Your task to perform on an android device: remove spam from my inbox in the gmail app Image 0: 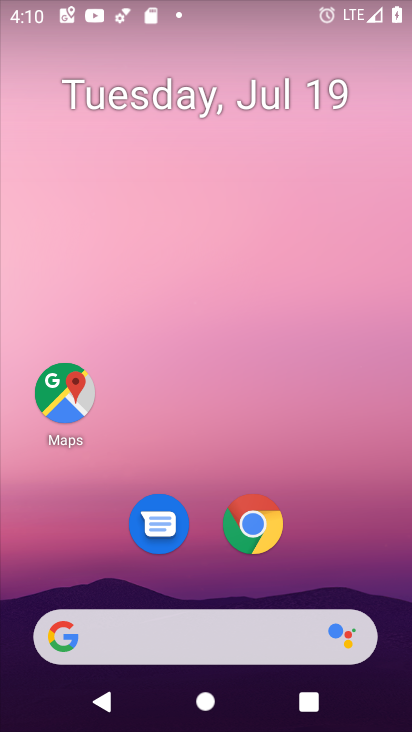
Step 0: drag from (335, 531) to (318, 63)
Your task to perform on an android device: remove spam from my inbox in the gmail app Image 1: 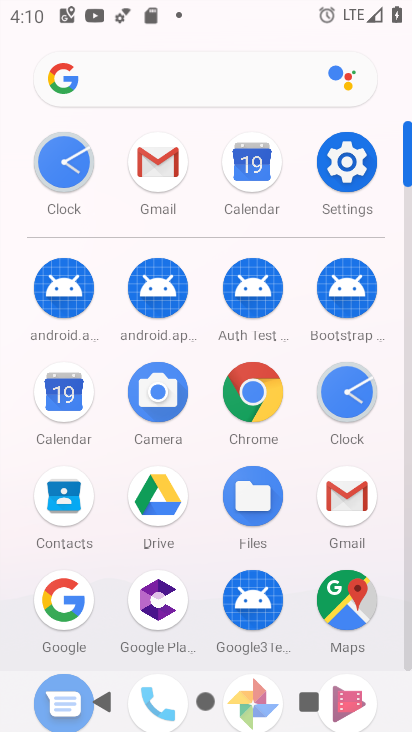
Step 1: click (163, 166)
Your task to perform on an android device: remove spam from my inbox in the gmail app Image 2: 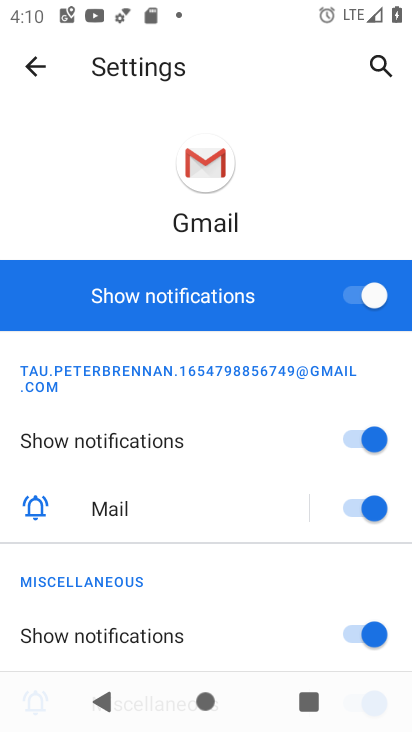
Step 2: click (35, 47)
Your task to perform on an android device: remove spam from my inbox in the gmail app Image 3: 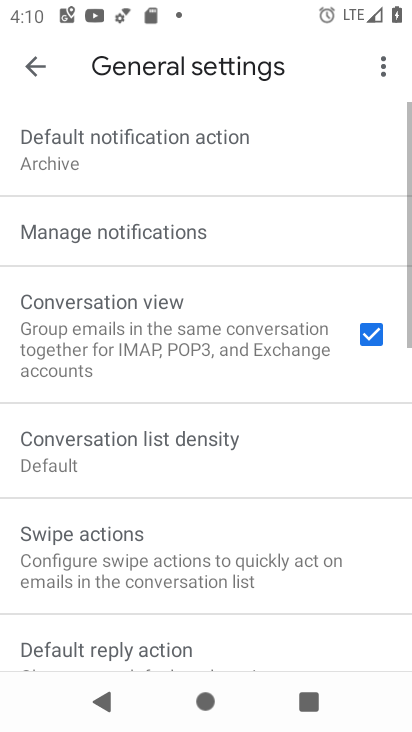
Step 3: click (35, 59)
Your task to perform on an android device: remove spam from my inbox in the gmail app Image 4: 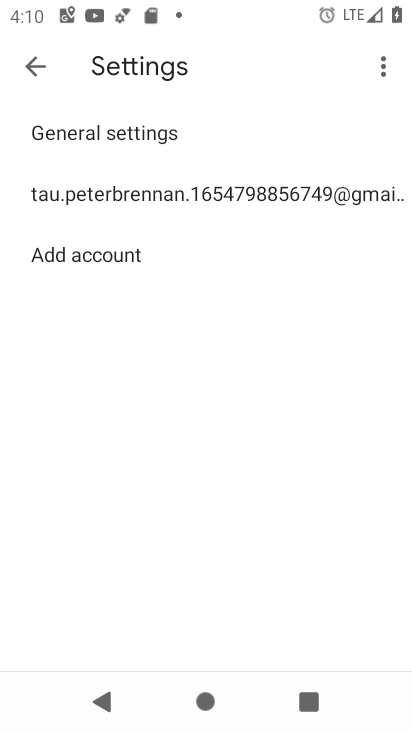
Step 4: click (39, 55)
Your task to perform on an android device: remove spam from my inbox in the gmail app Image 5: 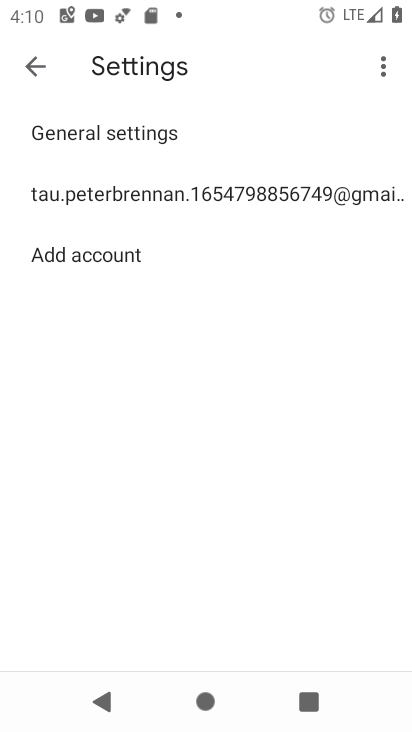
Step 5: click (35, 64)
Your task to perform on an android device: remove spam from my inbox in the gmail app Image 6: 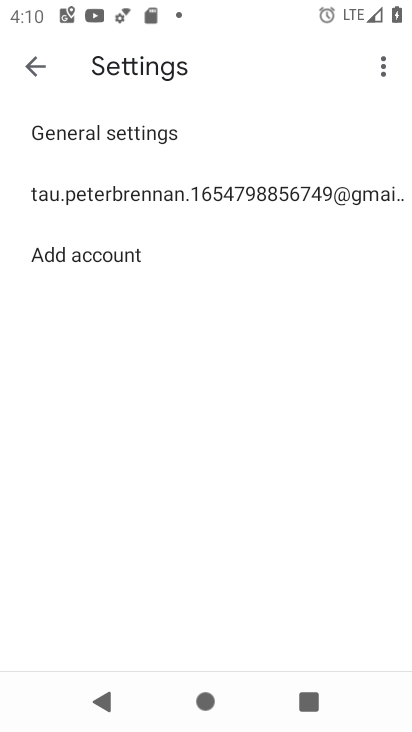
Step 6: click (35, 62)
Your task to perform on an android device: remove spam from my inbox in the gmail app Image 7: 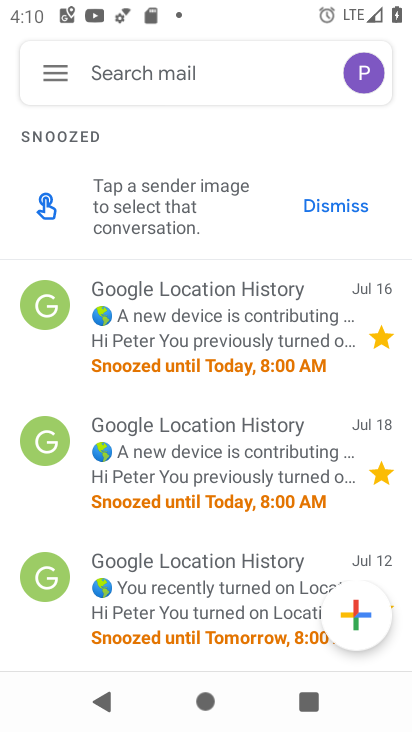
Step 7: click (35, 62)
Your task to perform on an android device: remove spam from my inbox in the gmail app Image 8: 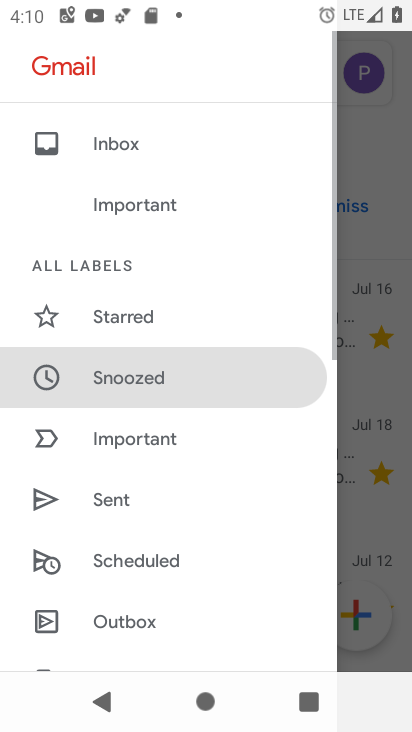
Step 8: click (105, 140)
Your task to perform on an android device: remove spam from my inbox in the gmail app Image 9: 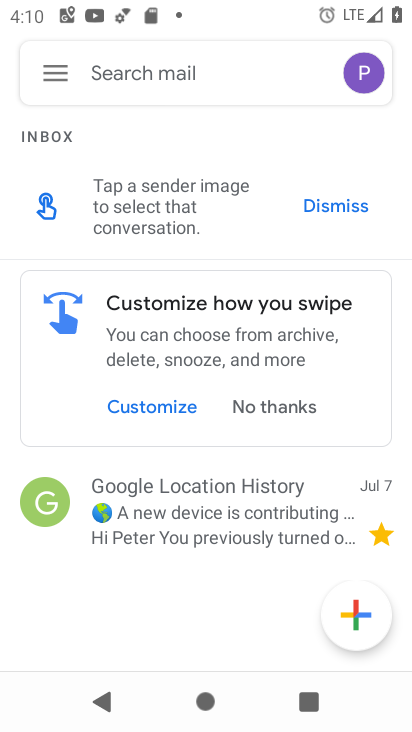
Step 9: click (264, 391)
Your task to perform on an android device: remove spam from my inbox in the gmail app Image 10: 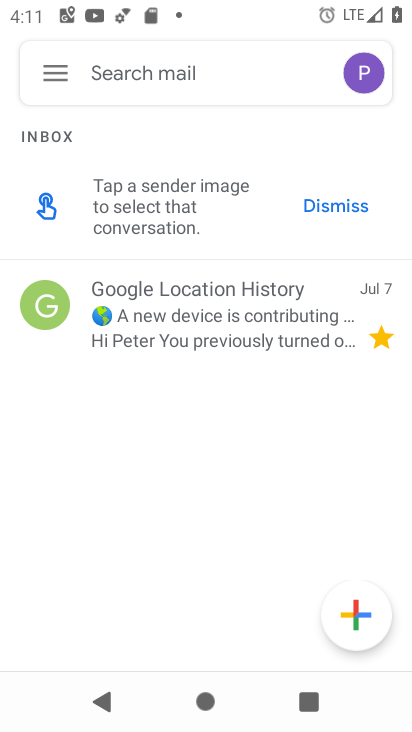
Step 10: task complete